Your task to perform on an android device: turn on sleep mode Image 0: 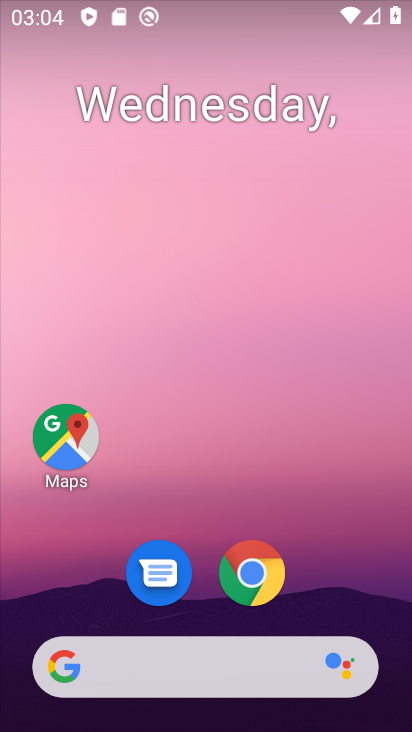
Step 0: drag from (201, 727) to (201, 205)
Your task to perform on an android device: turn on sleep mode Image 1: 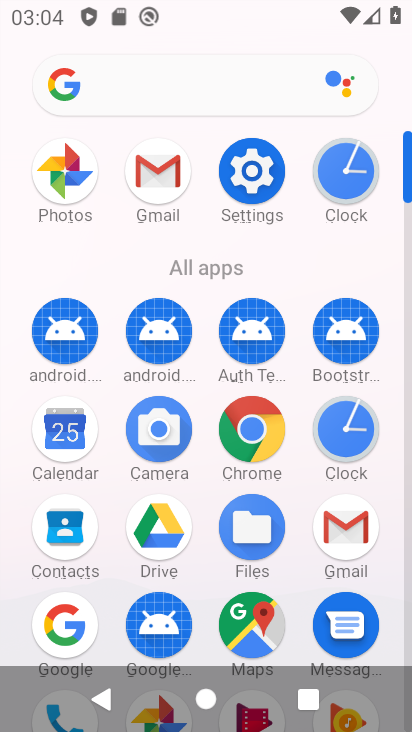
Step 1: click (252, 164)
Your task to perform on an android device: turn on sleep mode Image 2: 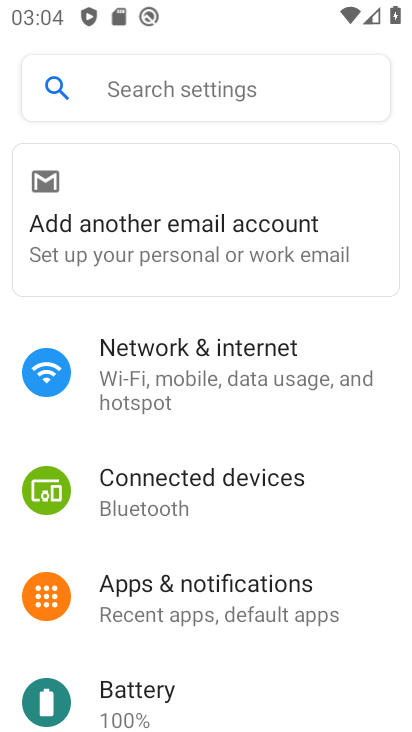
Step 2: click (205, 368)
Your task to perform on an android device: turn on sleep mode Image 3: 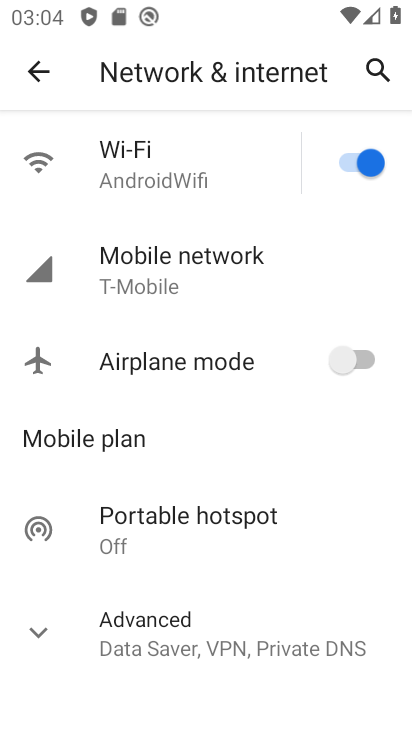
Step 3: drag from (203, 632) to (209, 268)
Your task to perform on an android device: turn on sleep mode Image 4: 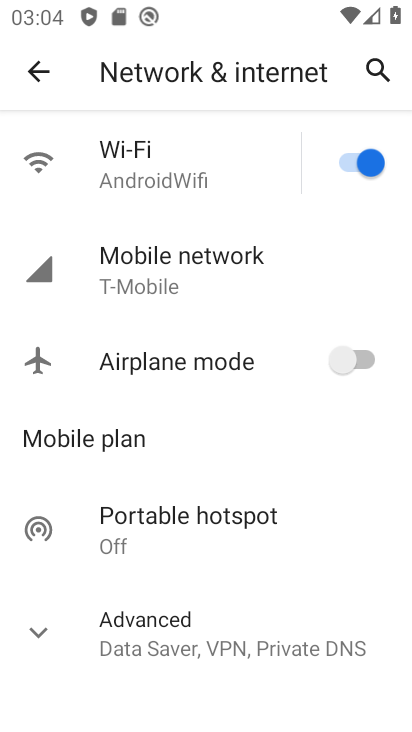
Step 4: click (41, 68)
Your task to perform on an android device: turn on sleep mode Image 5: 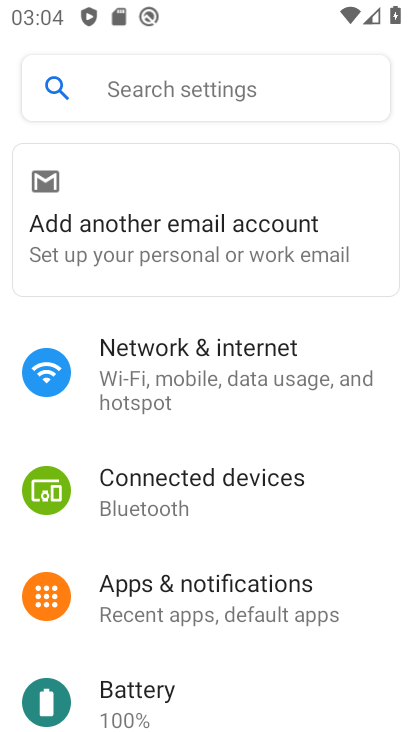
Step 5: task complete